Your task to perform on an android device: visit the assistant section in the google photos Image 0: 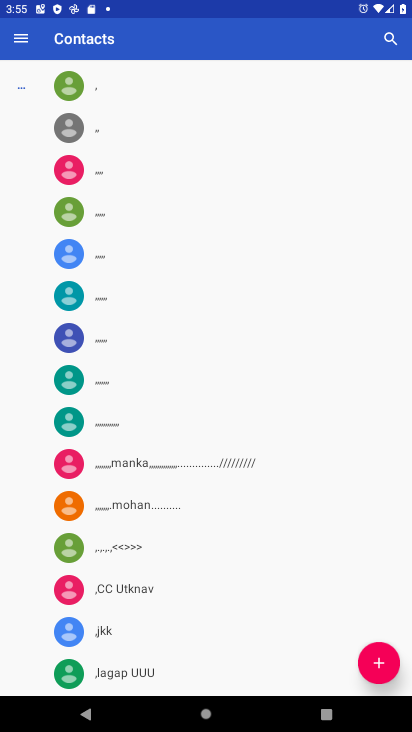
Step 0: press home button
Your task to perform on an android device: visit the assistant section in the google photos Image 1: 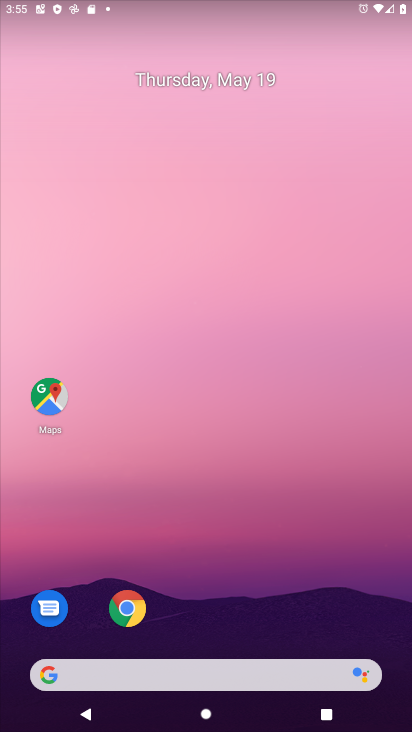
Step 1: drag from (333, 615) to (197, 0)
Your task to perform on an android device: visit the assistant section in the google photos Image 2: 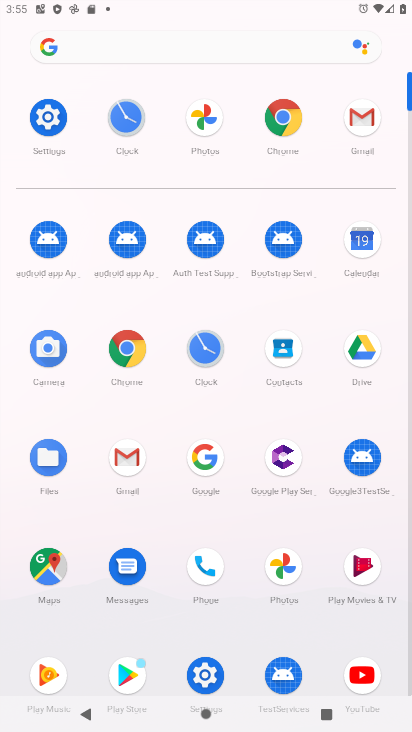
Step 2: click (211, 137)
Your task to perform on an android device: visit the assistant section in the google photos Image 3: 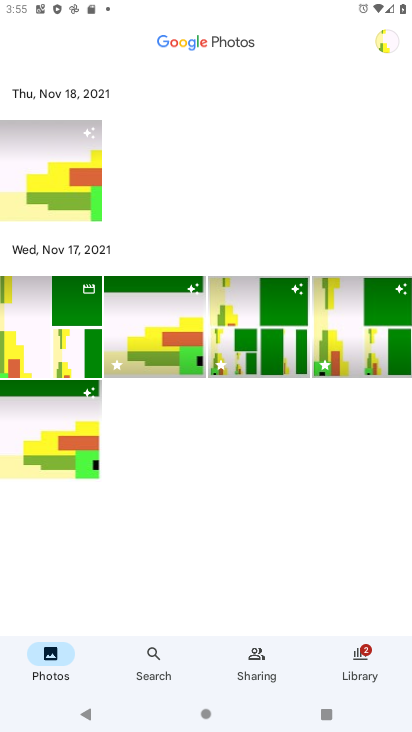
Step 3: task complete